Your task to perform on an android device: How big is the sun? Image 0: 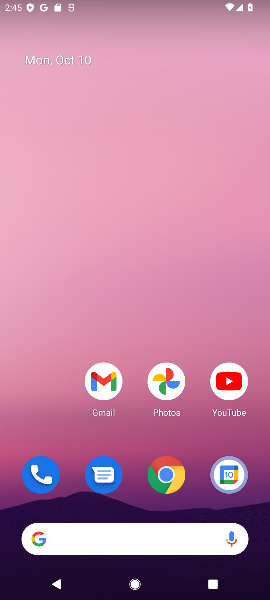
Step 0: drag from (138, 538) to (252, 7)
Your task to perform on an android device: How big is the sun? Image 1: 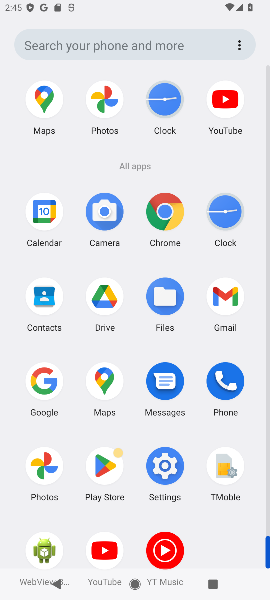
Step 1: click (52, 390)
Your task to perform on an android device: How big is the sun? Image 2: 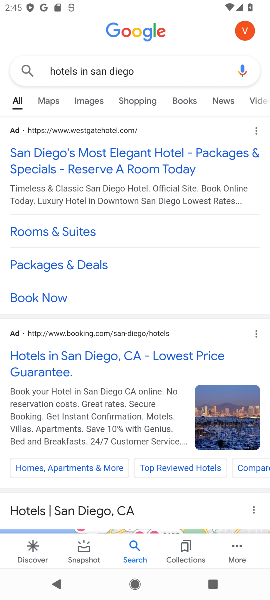
Step 2: click (167, 66)
Your task to perform on an android device: How big is the sun? Image 3: 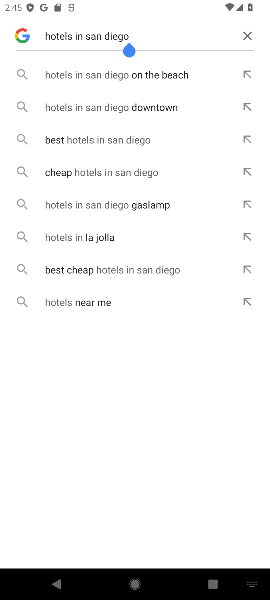
Step 3: click (245, 36)
Your task to perform on an android device: How big is the sun? Image 4: 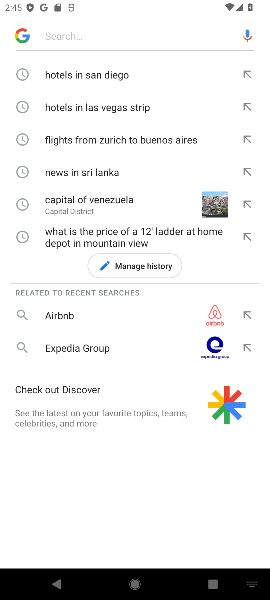
Step 4: type "How big is the sun"
Your task to perform on an android device: How big is the sun? Image 5: 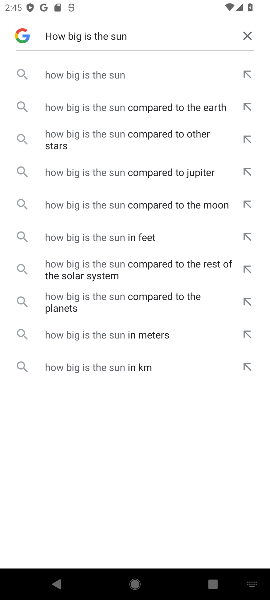
Step 5: click (146, 69)
Your task to perform on an android device: How big is the sun? Image 6: 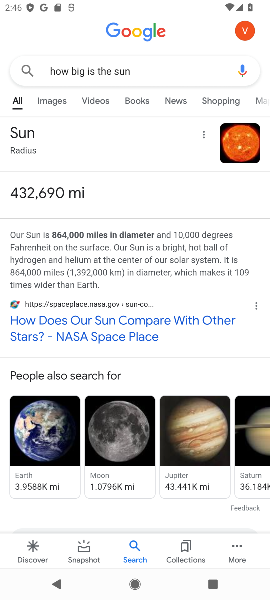
Step 6: task complete